Your task to perform on an android device: Open internet settings Image 0: 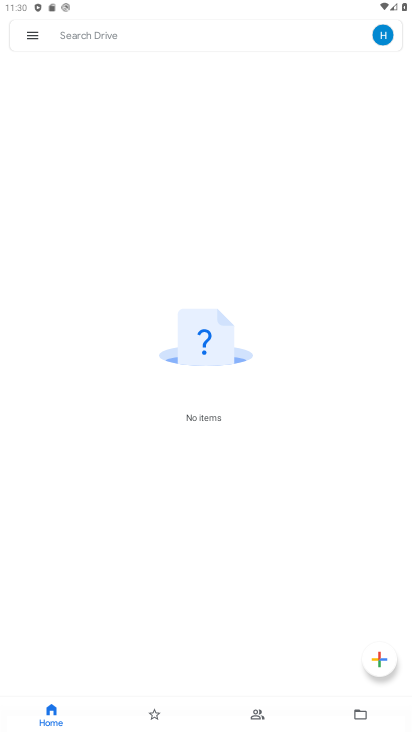
Step 0: drag from (270, 9) to (284, 597)
Your task to perform on an android device: Open internet settings Image 1: 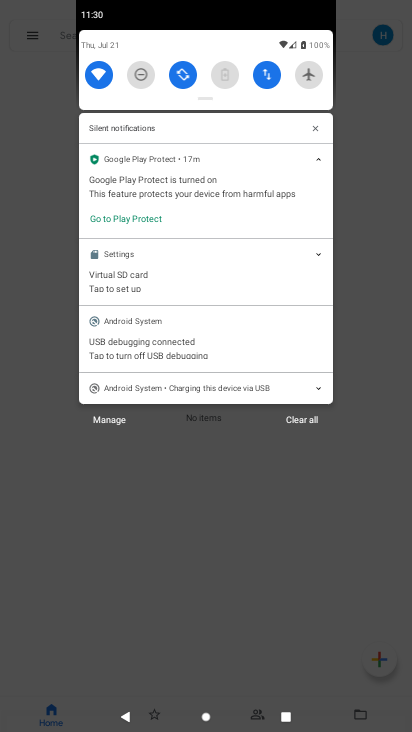
Step 1: click (265, 85)
Your task to perform on an android device: Open internet settings Image 2: 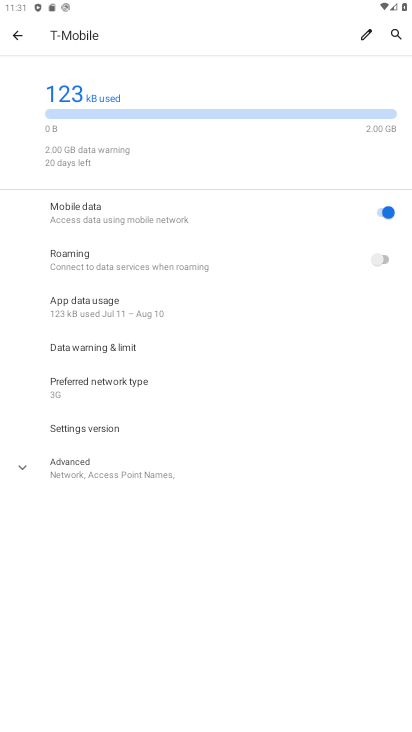
Step 2: task complete